Your task to perform on an android device: Open CNN.com Image 0: 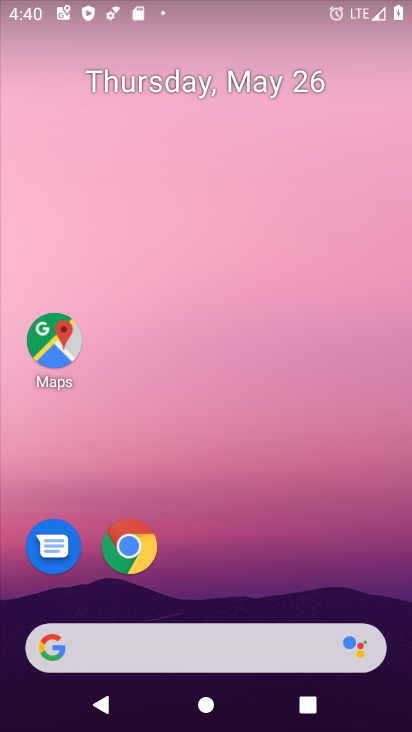
Step 0: click (128, 545)
Your task to perform on an android device: Open CNN.com Image 1: 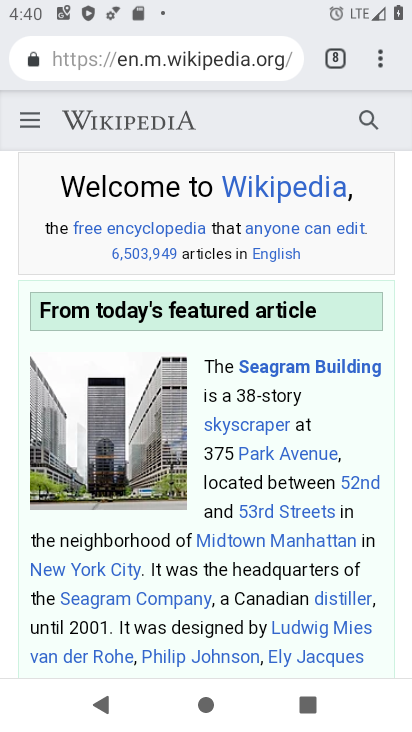
Step 1: click (325, 58)
Your task to perform on an android device: Open CNN.com Image 2: 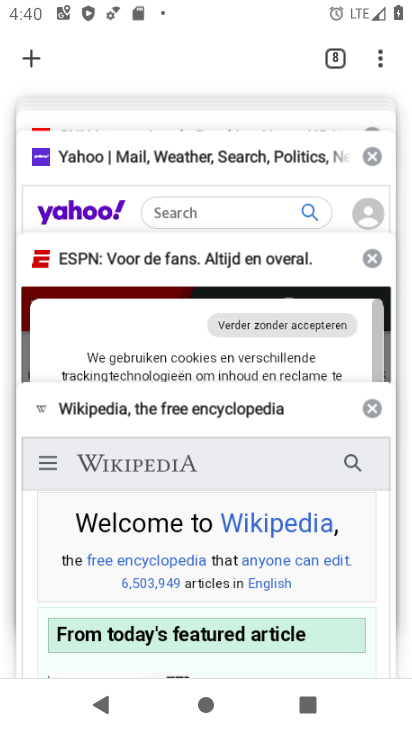
Step 2: drag from (191, 187) to (146, 526)
Your task to perform on an android device: Open CNN.com Image 3: 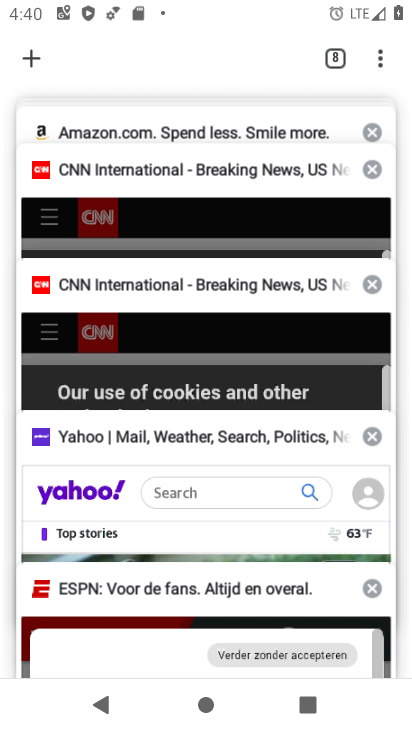
Step 3: click (97, 298)
Your task to perform on an android device: Open CNN.com Image 4: 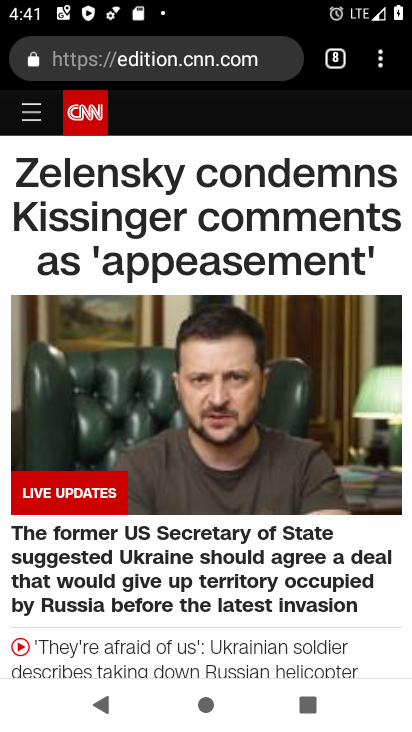
Step 4: task complete